Your task to perform on an android device: toggle javascript in the chrome app Image 0: 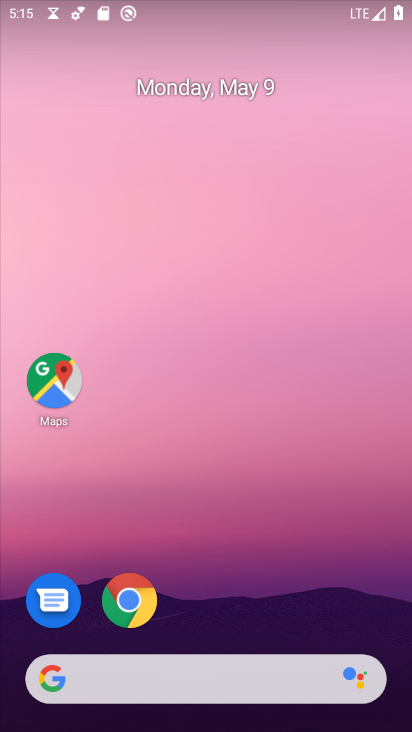
Step 0: drag from (277, 641) to (350, 35)
Your task to perform on an android device: toggle javascript in the chrome app Image 1: 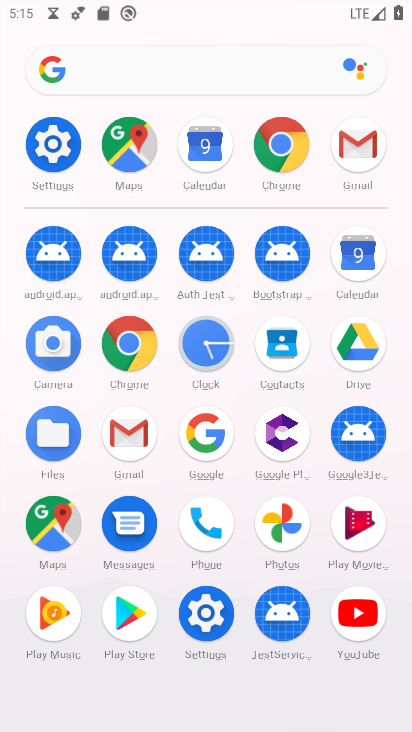
Step 1: click (133, 342)
Your task to perform on an android device: toggle javascript in the chrome app Image 2: 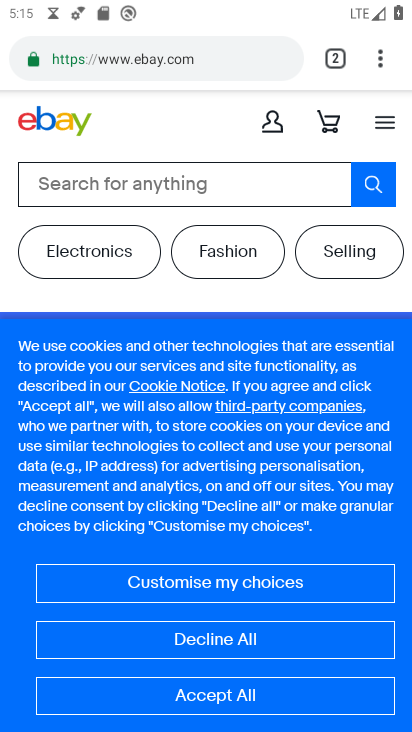
Step 2: drag from (372, 52) to (219, 622)
Your task to perform on an android device: toggle javascript in the chrome app Image 3: 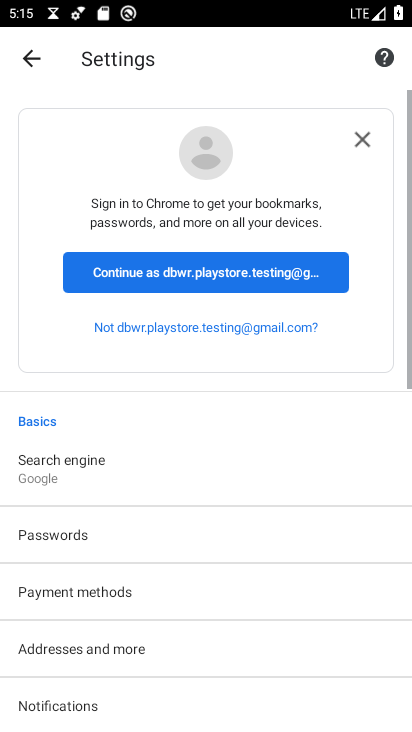
Step 3: drag from (197, 674) to (265, 128)
Your task to perform on an android device: toggle javascript in the chrome app Image 4: 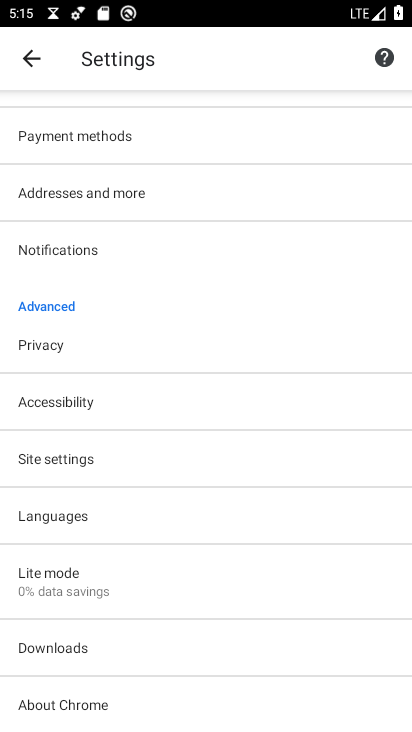
Step 4: click (151, 462)
Your task to perform on an android device: toggle javascript in the chrome app Image 5: 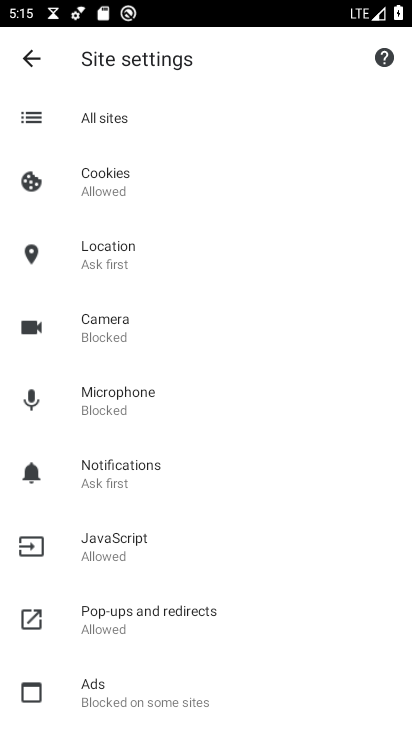
Step 5: click (141, 551)
Your task to perform on an android device: toggle javascript in the chrome app Image 6: 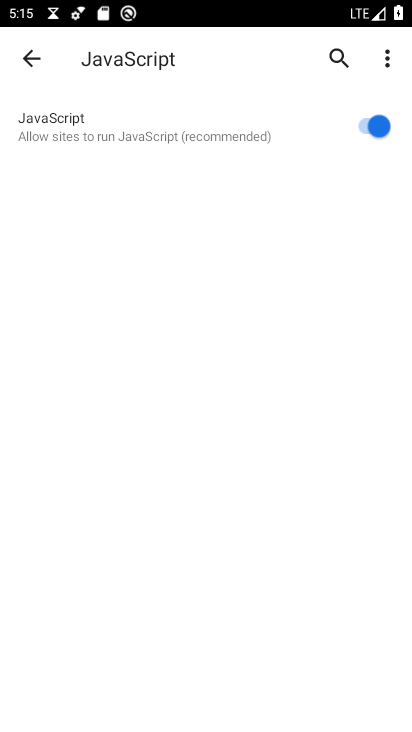
Step 6: click (362, 120)
Your task to perform on an android device: toggle javascript in the chrome app Image 7: 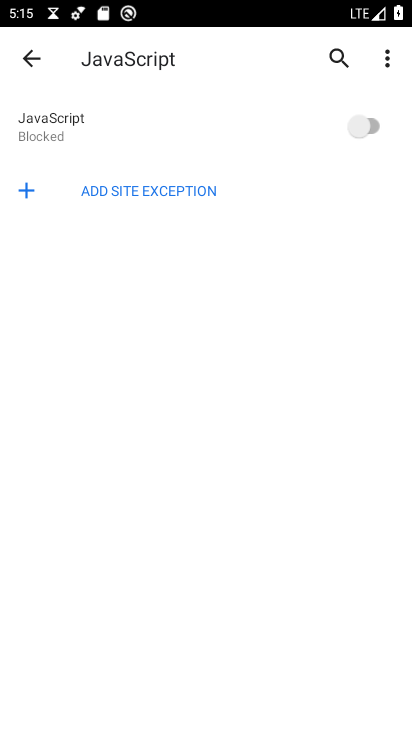
Step 7: task complete